Your task to perform on an android device: check data usage Image 0: 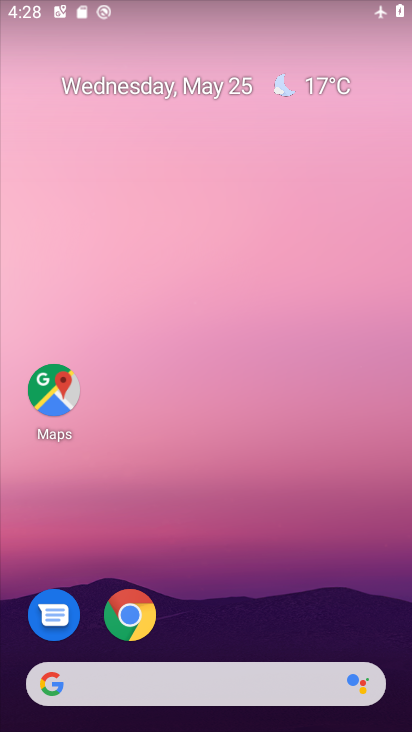
Step 0: drag from (301, 660) to (180, 0)
Your task to perform on an android device: check data usage Image 1: 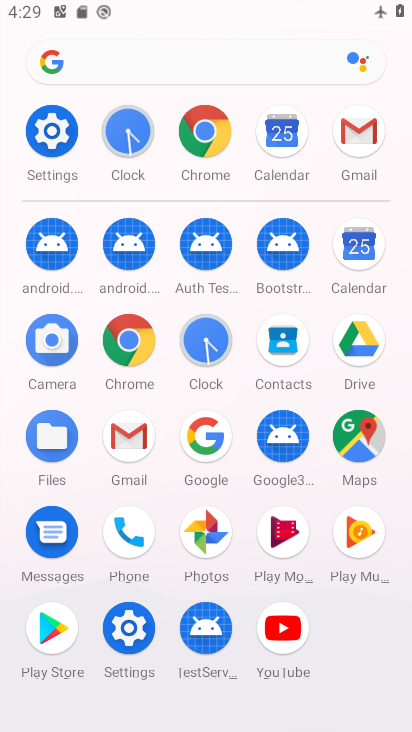
Step 1: click (62, 146)
Your task to perform on an android device: check data usage Image 2: 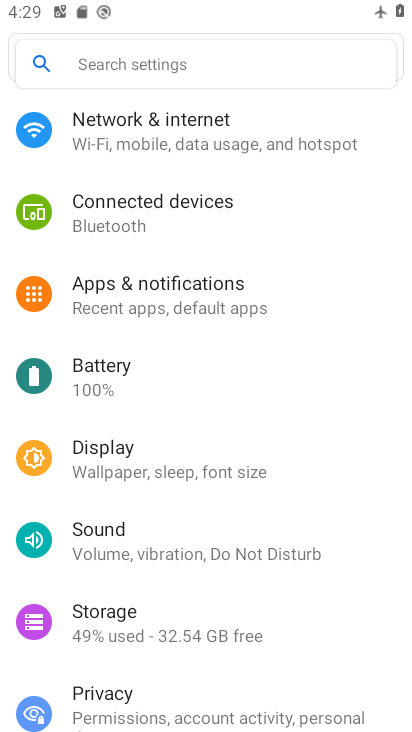
Step 2: click (159, 141)
Your task to perform on an android device: check data usage Image 3: 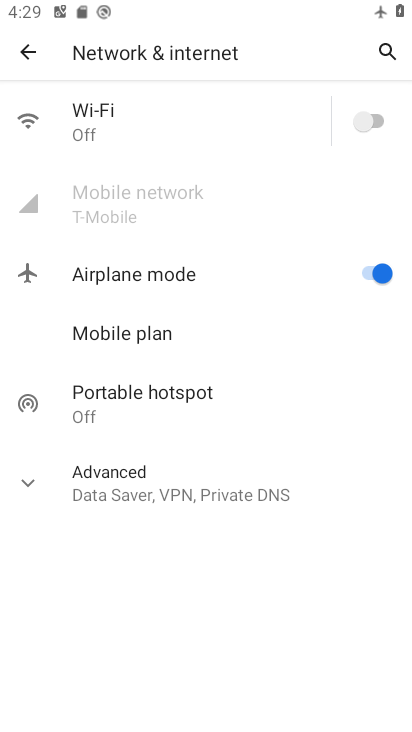
Step 3: task complete